Your task to perform on an android device: Add "razer deathadder" to the cart on bestbuy, then select checkout. Image 0: 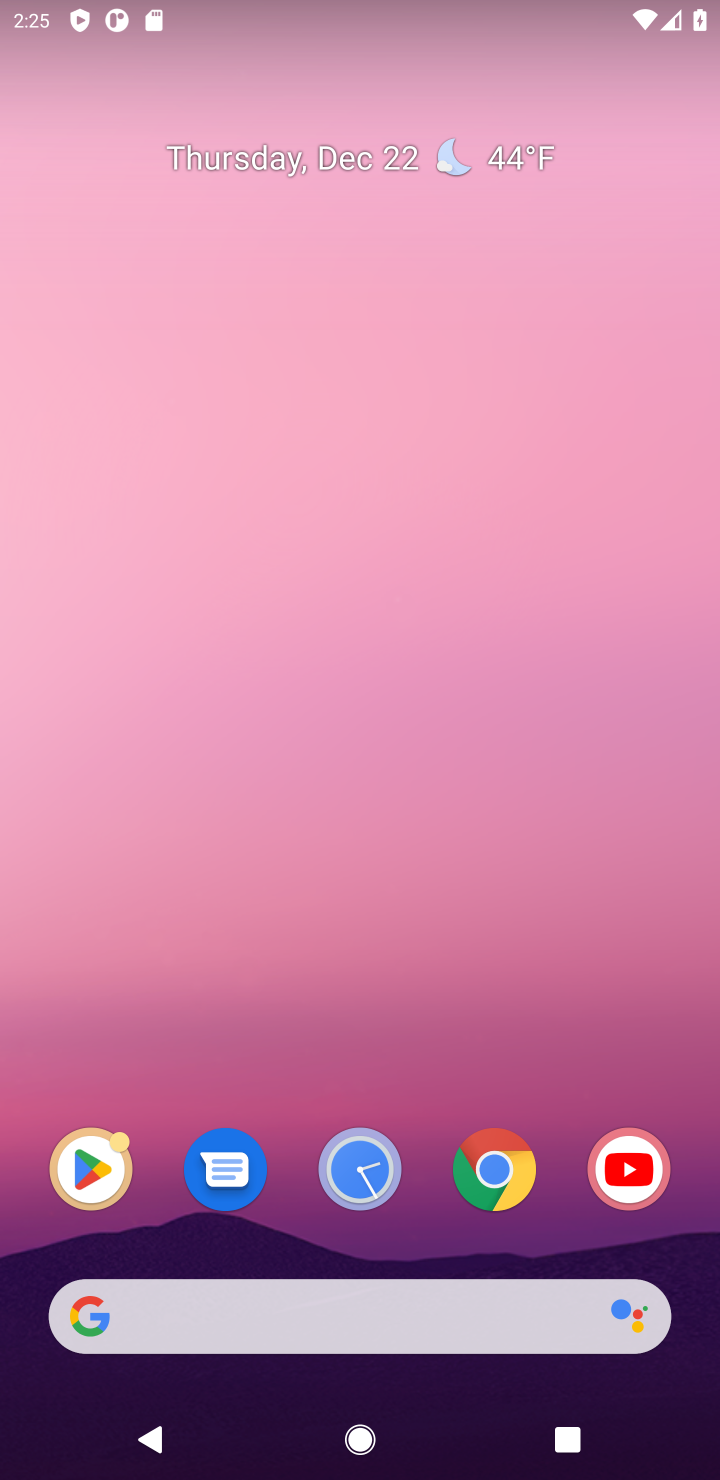
Step 0: click (507, 1162)
Your task to perform on an android device: Add "razer deathadder" to the cart on bestbuy, then select checkout. Image 1: 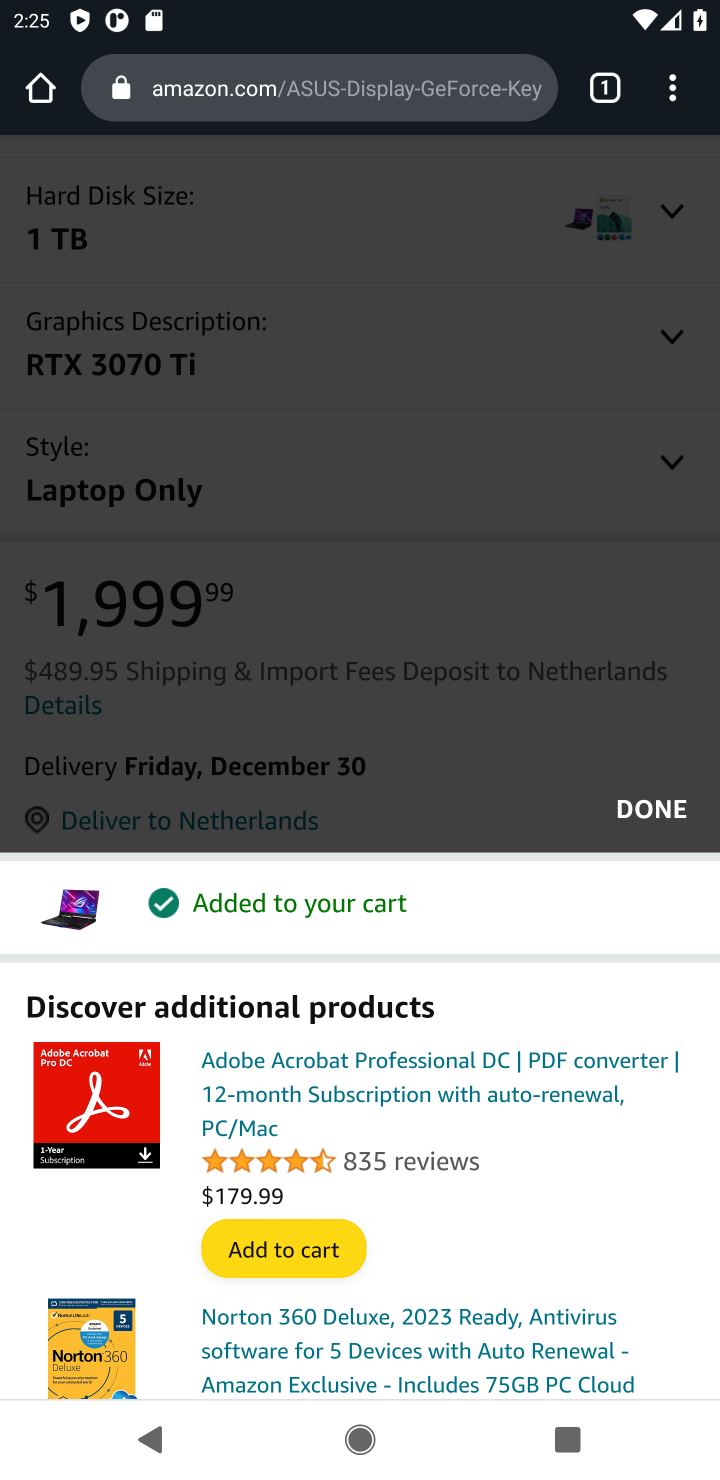
Step 1: click (290, 94)
Your task to perform on an android device: Add "razer deathadder" to the cart on bestbuy, then select checkout. Image 2: 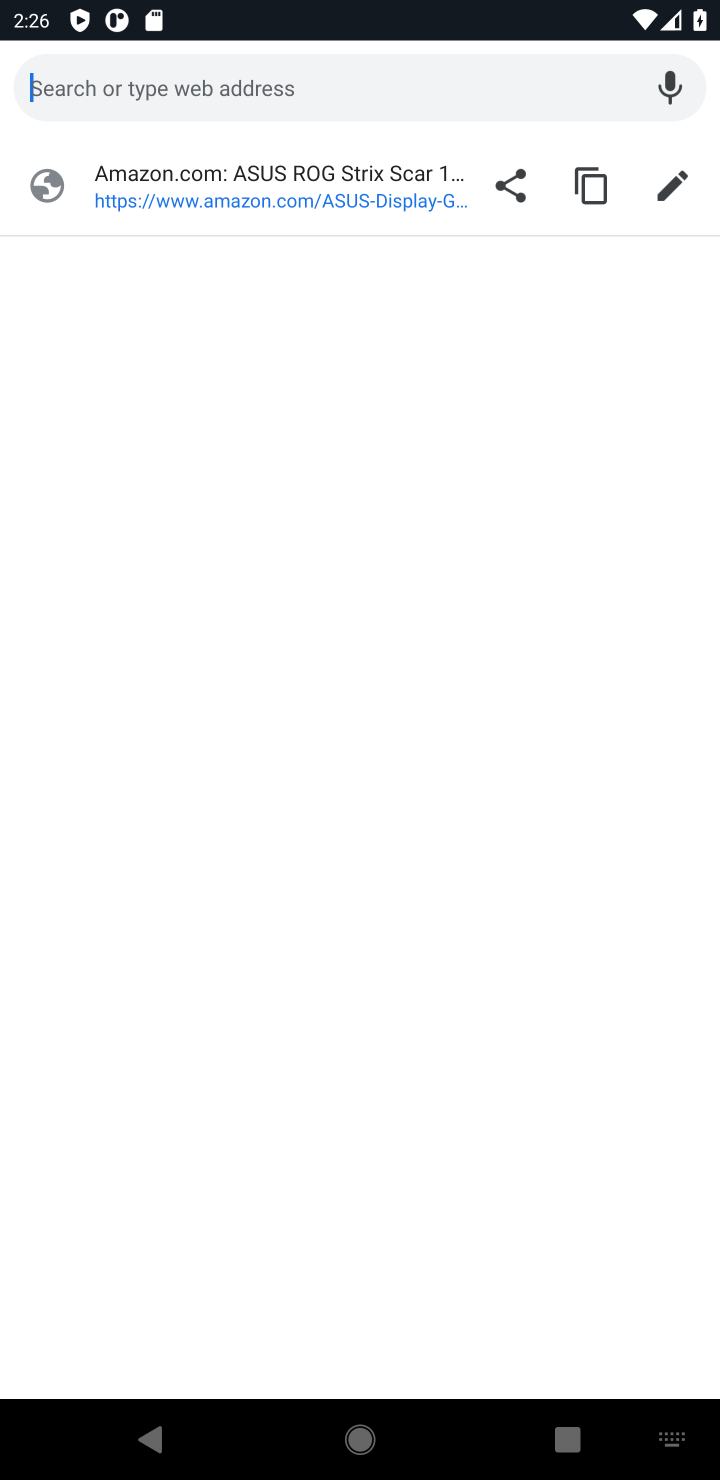
Step 2: type "bestbuy.com"
Your task to perform on an android device: Add "razer deathadder" to the cart on bestbuy, then select checkout. Image 3: 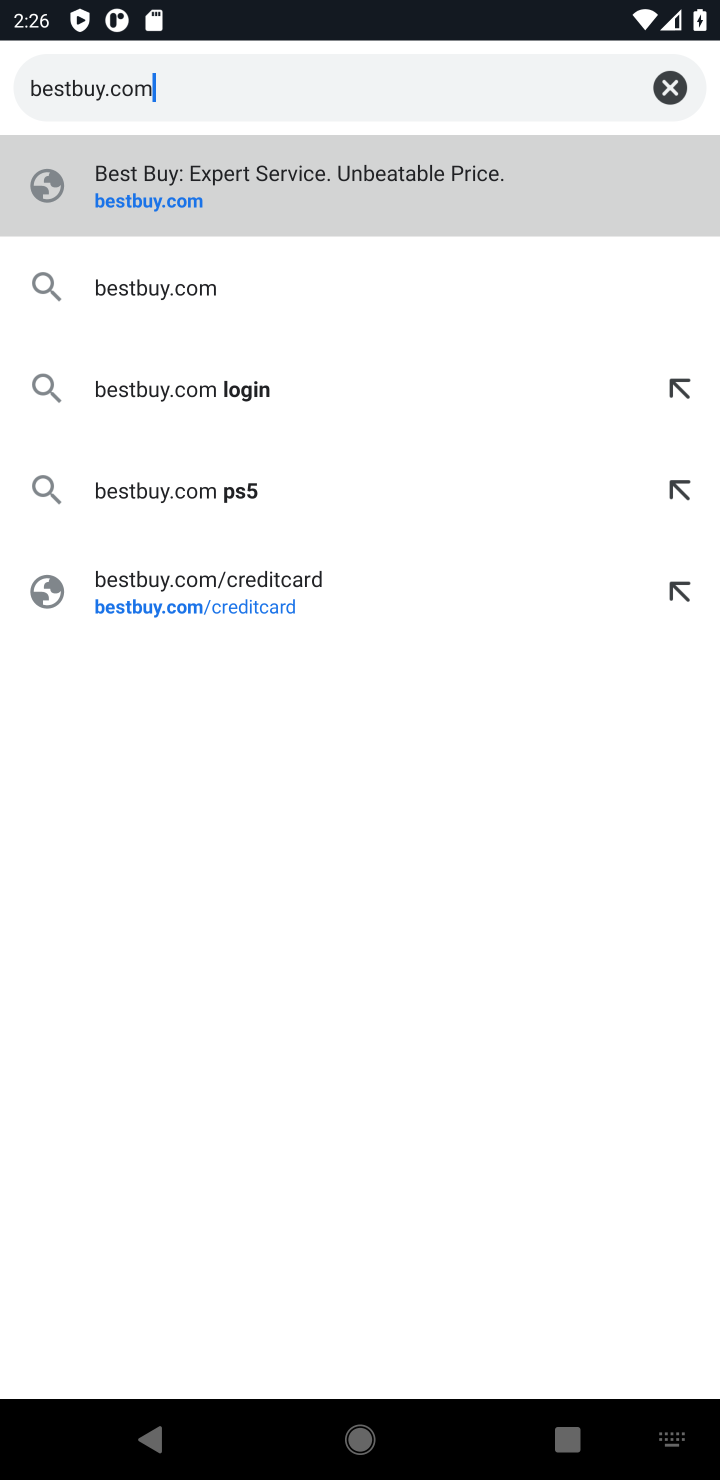
Step 3: click (140, 206)
Your task to perform on an android device: Add "razer deathadder" to the cart on bestbuy, then select checkout. Image 4: 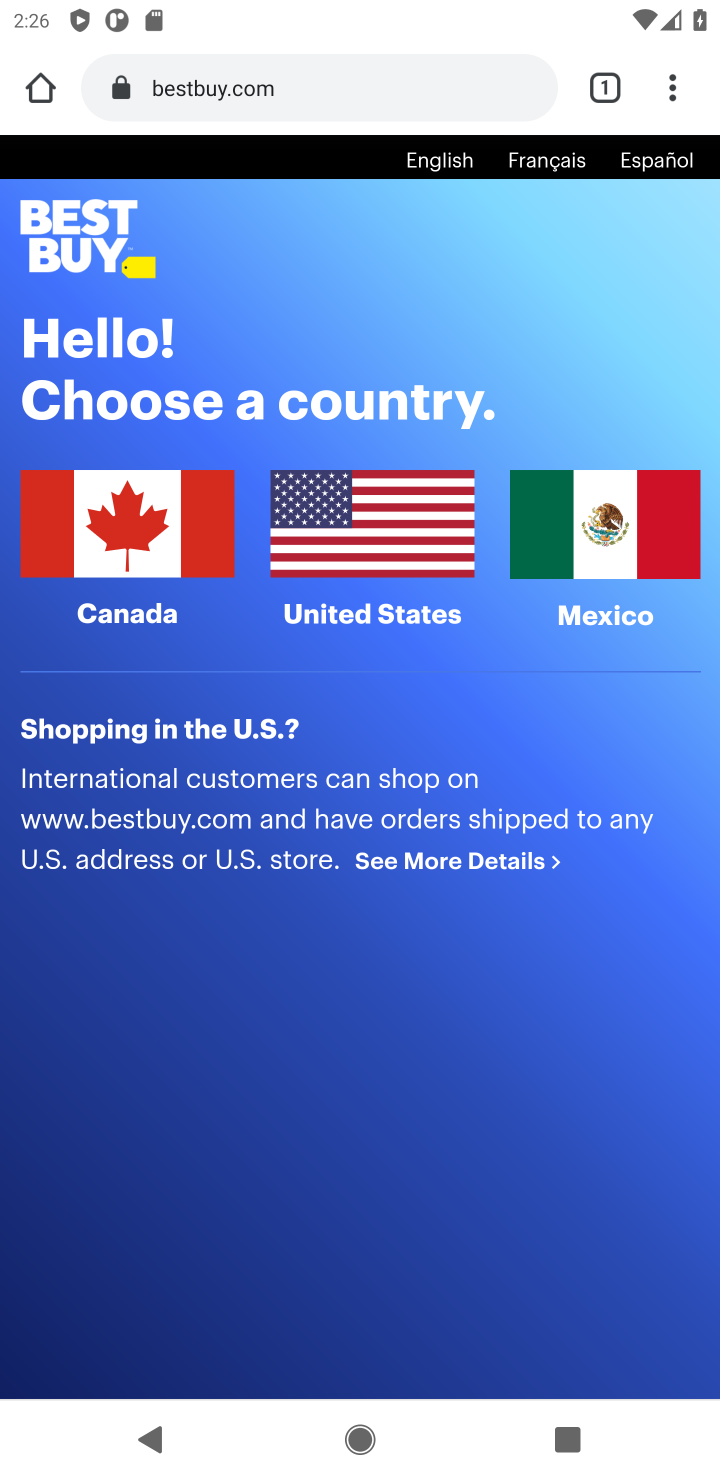
Step 4: click (375, 564)
Your task to perform on an android device: Add "razer deathadder" to the cart on bestbuy, then select checkout. Image 5: 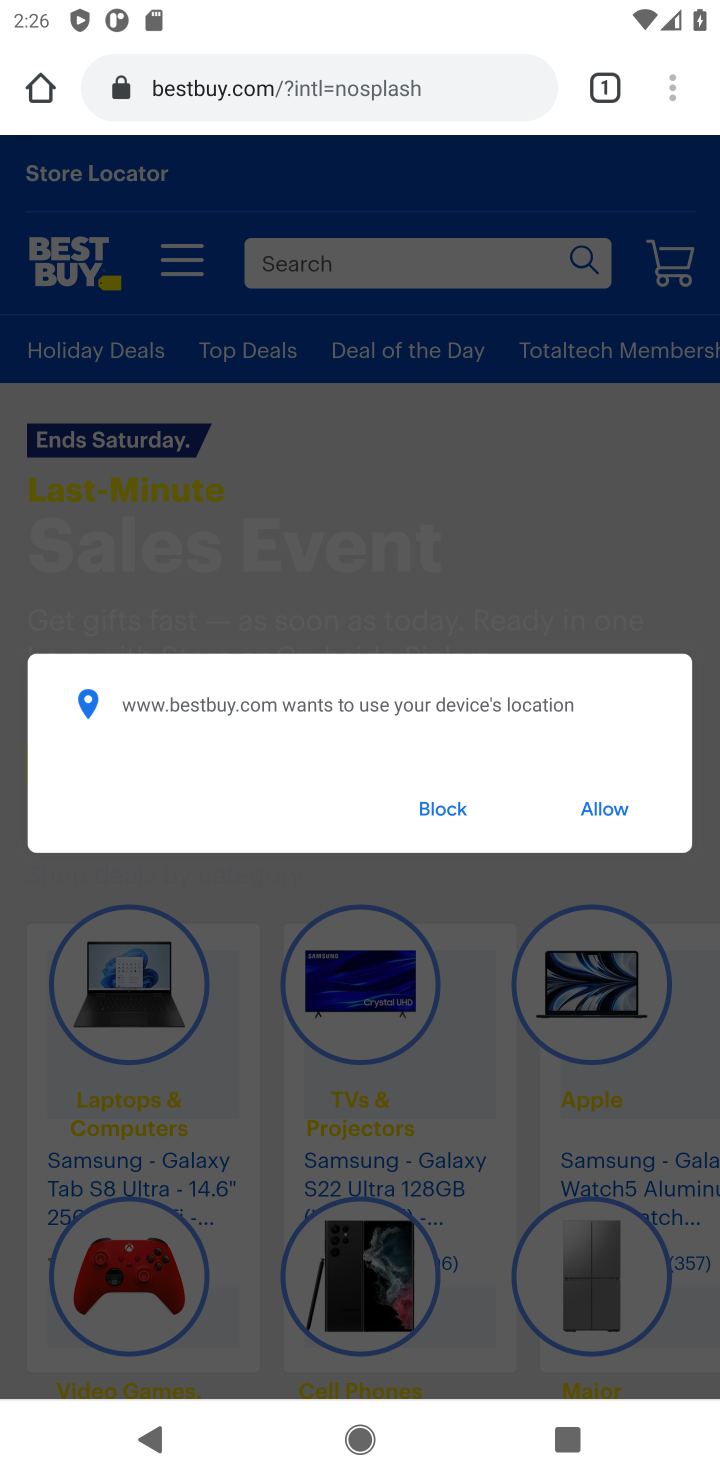
Step 5: click (457, 818)
Your task to perform on an android device: Add "razer deathadder" to the cart on bestbuy, then select checkout. Image 6: 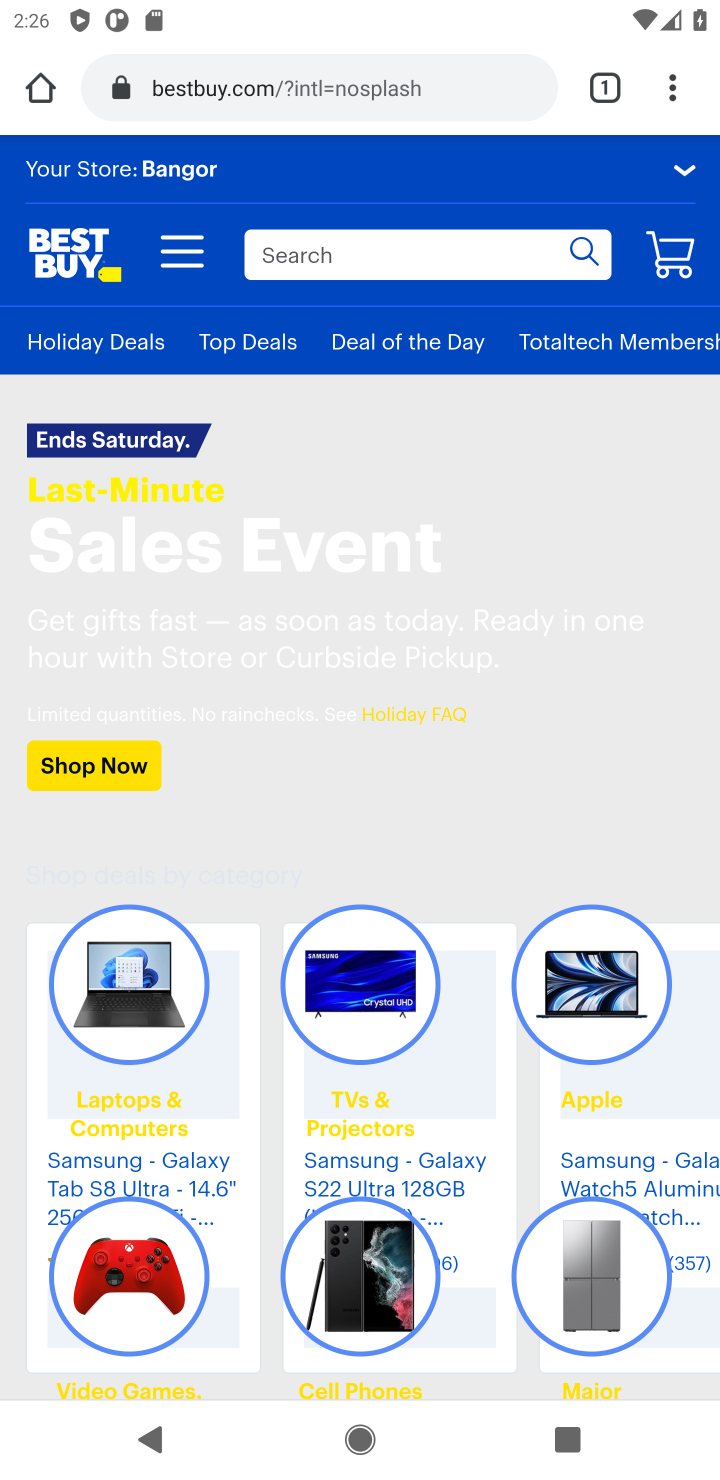
Step 6: click (309, 264)
Your task to perform on an android device: Add "razer deathadder" to the cart on bestbuy, then select checkout. Image 7: 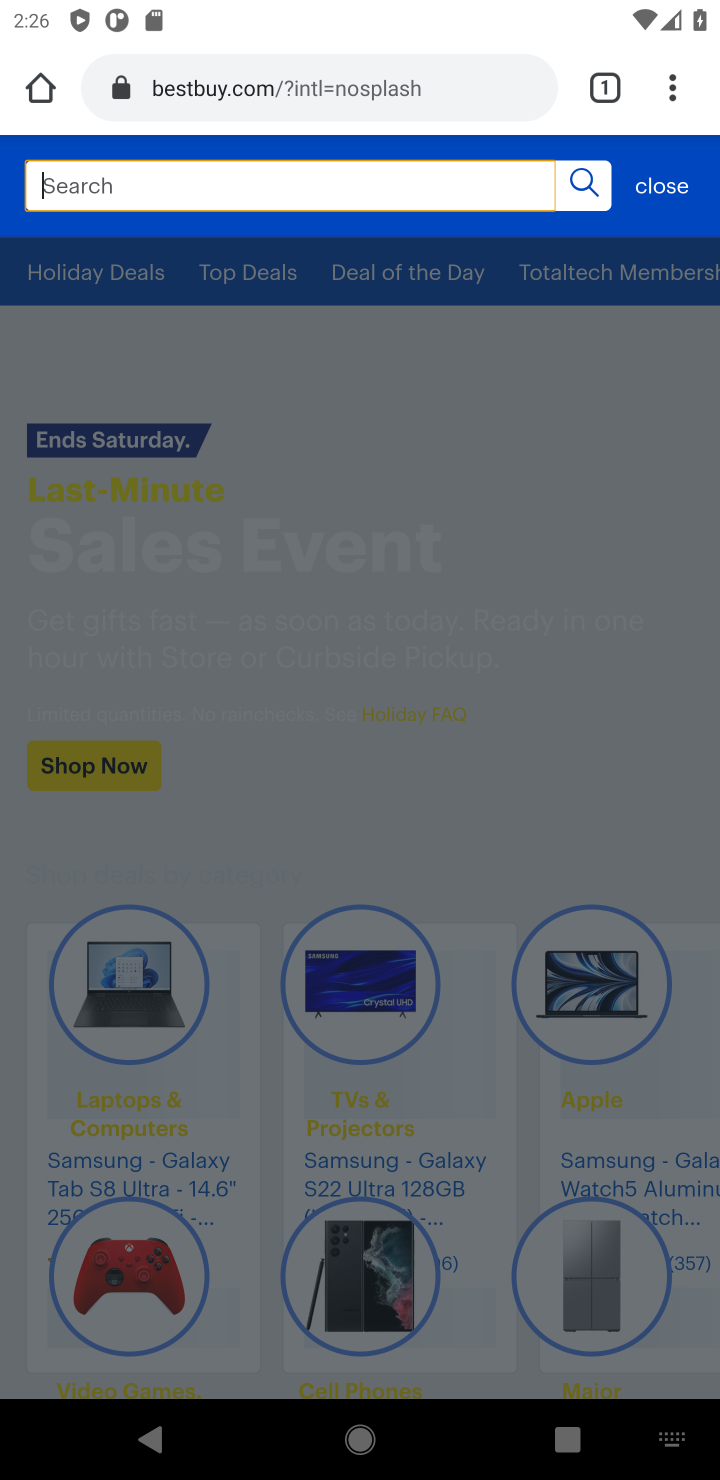
Step 7: type "razer deathadder"
Your task to perform on an android device: Add "razer deathadder" to the cart on bestbuy, then select checkout. Image 8: 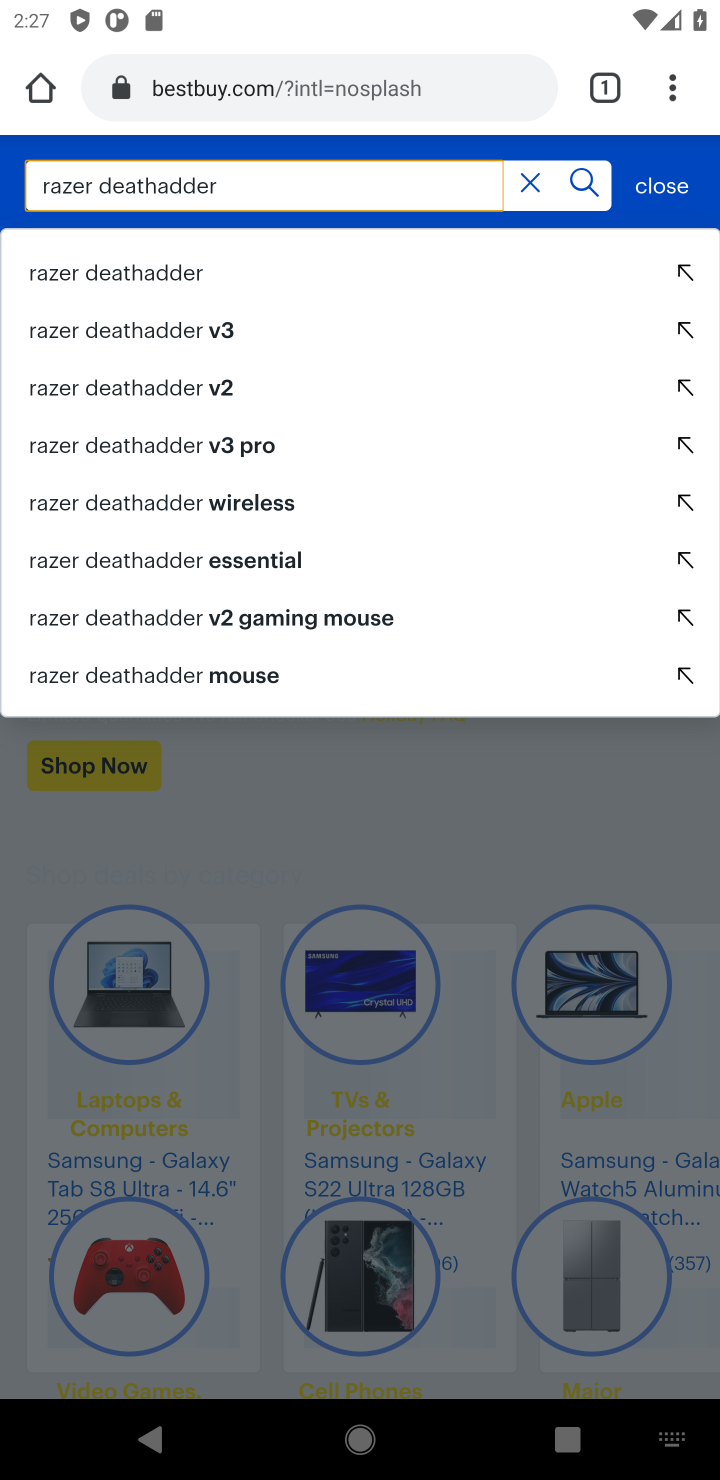
Step 8: click (138, 284)
Your task to perform on an android device: Add "razer deathadder" to the cart on bestbuy, then select checkout. Image 9: 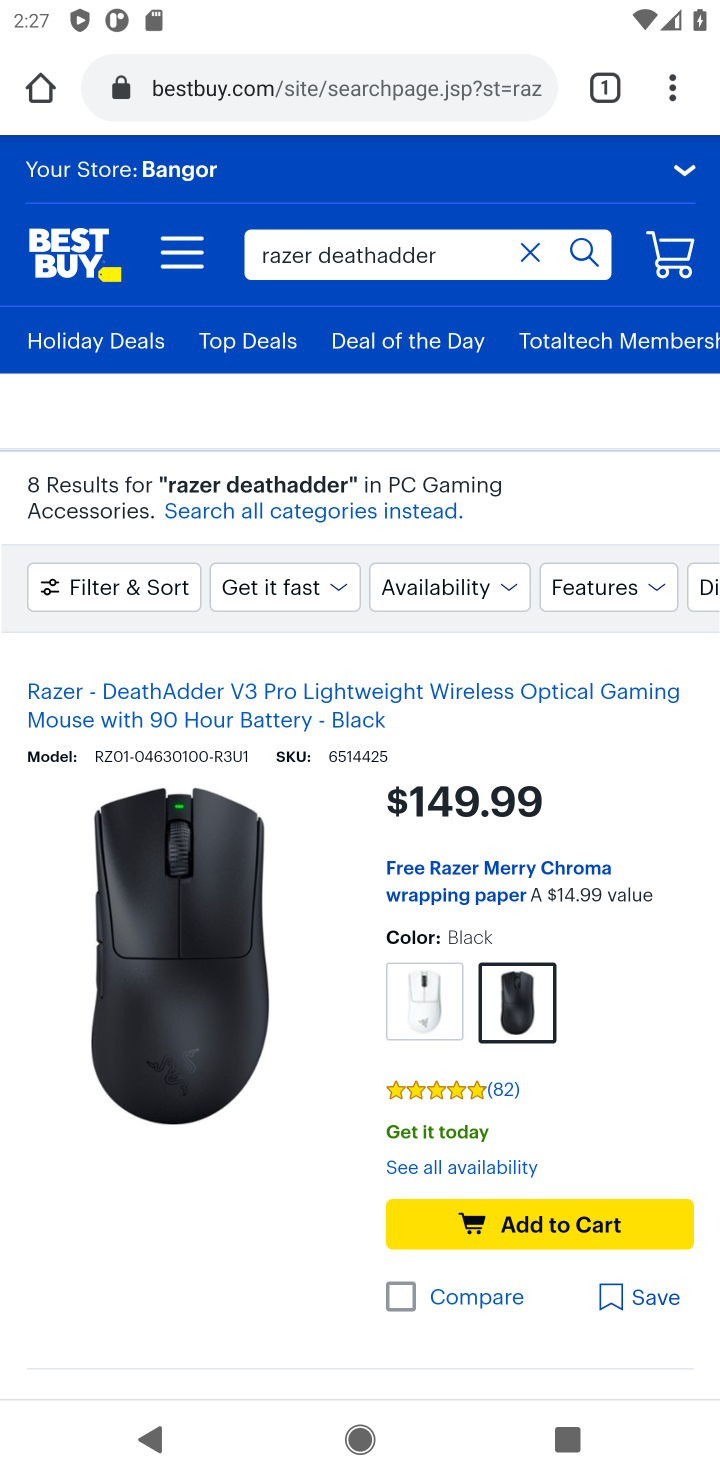
Step 9: click (534, 1140)
Your task to perform on an android device: Add "razer deathadder" to the cart on bestbuy, then select checkout. Image 10: 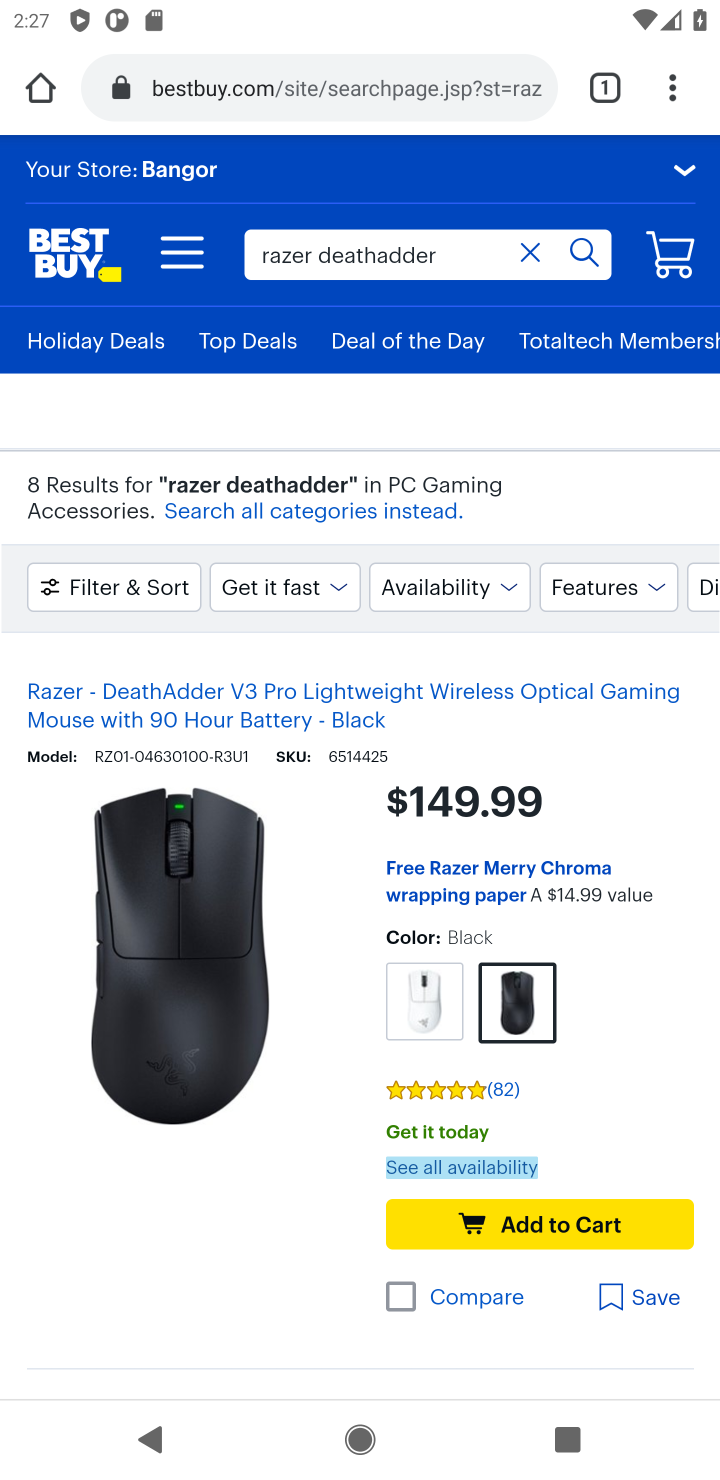
Step 10: click (532, 1223)
Your task to perform on an android device: Add "razer deathadder" to the cart on bestbuy, then select checkout. Image 11: 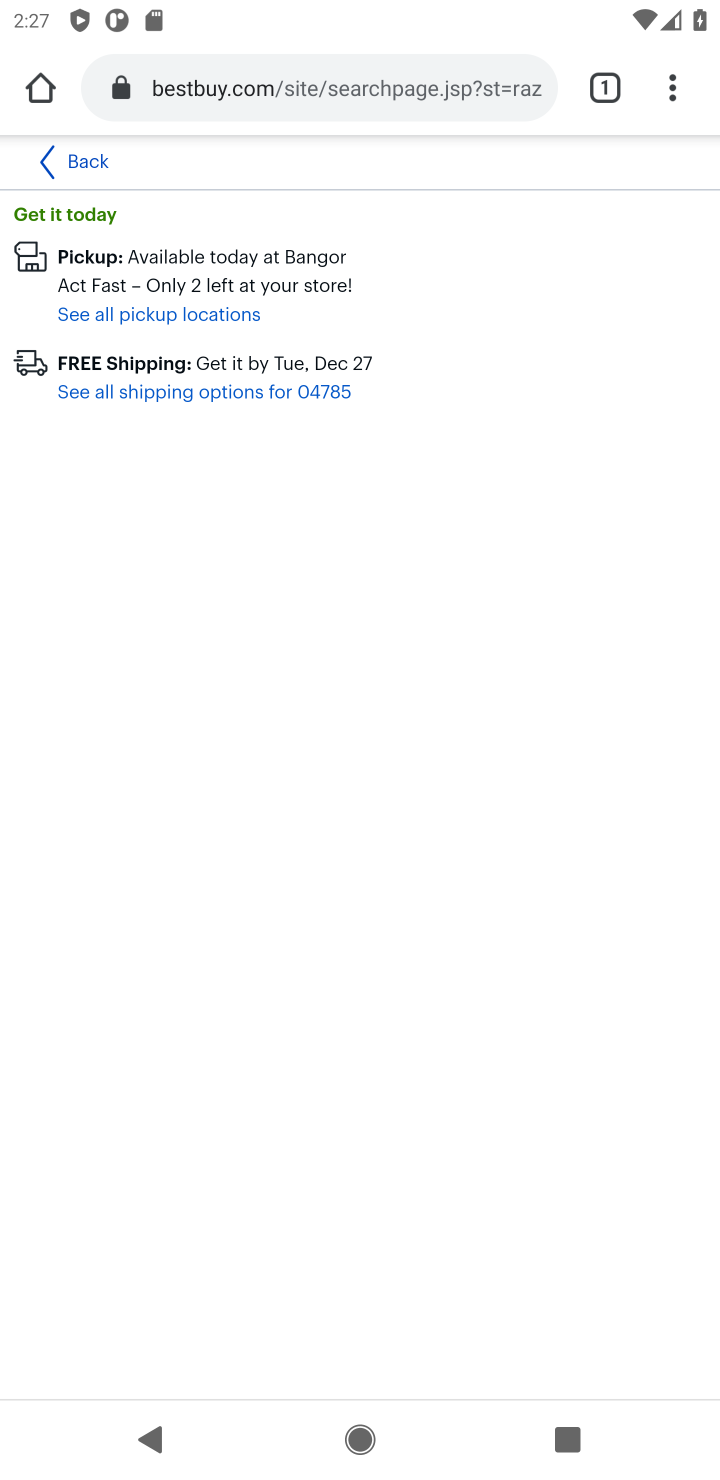
Step 11: click (60, 156)
Your task to perform on an android device: Add "razer deathadder" to the cart on bestbuy, then select checkout. Image 12: 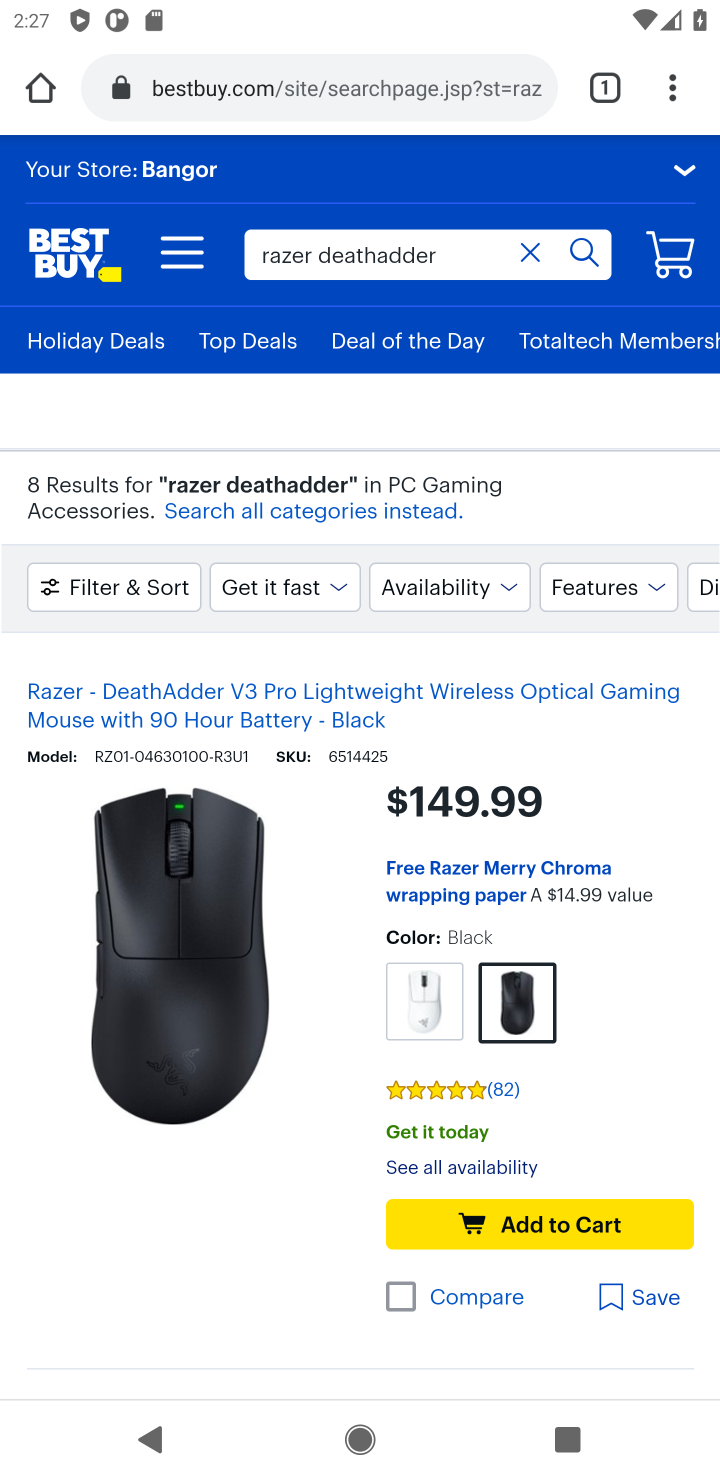
Step 12: click (509, 1231)
Your task to perform on an android device: Add "razer deathadder" to the cart on bestbuy, then select checkout. Image 13: 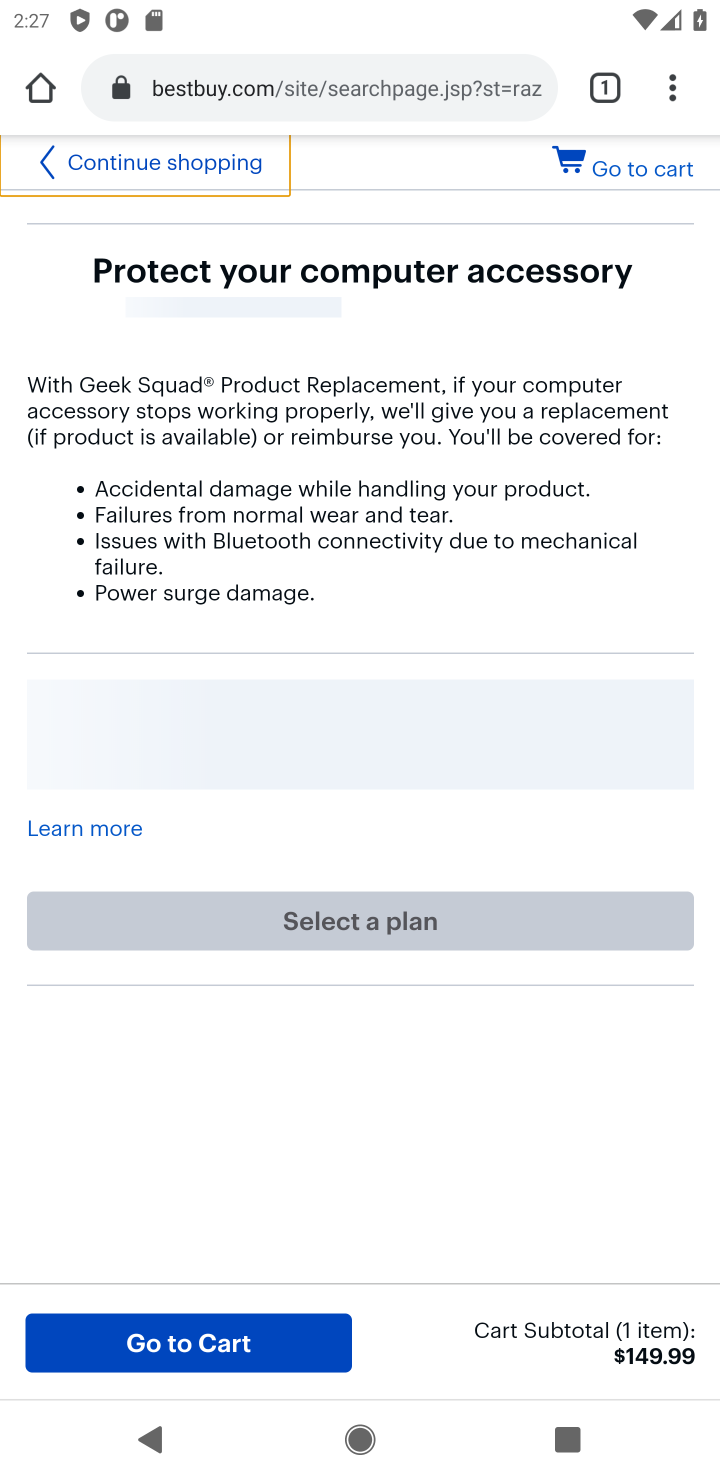
Step 13: click (612, 165)
Your task to perform on an android device: Add "razer deathadder" to the cart on bestbuy, then select checkout. Image 14: 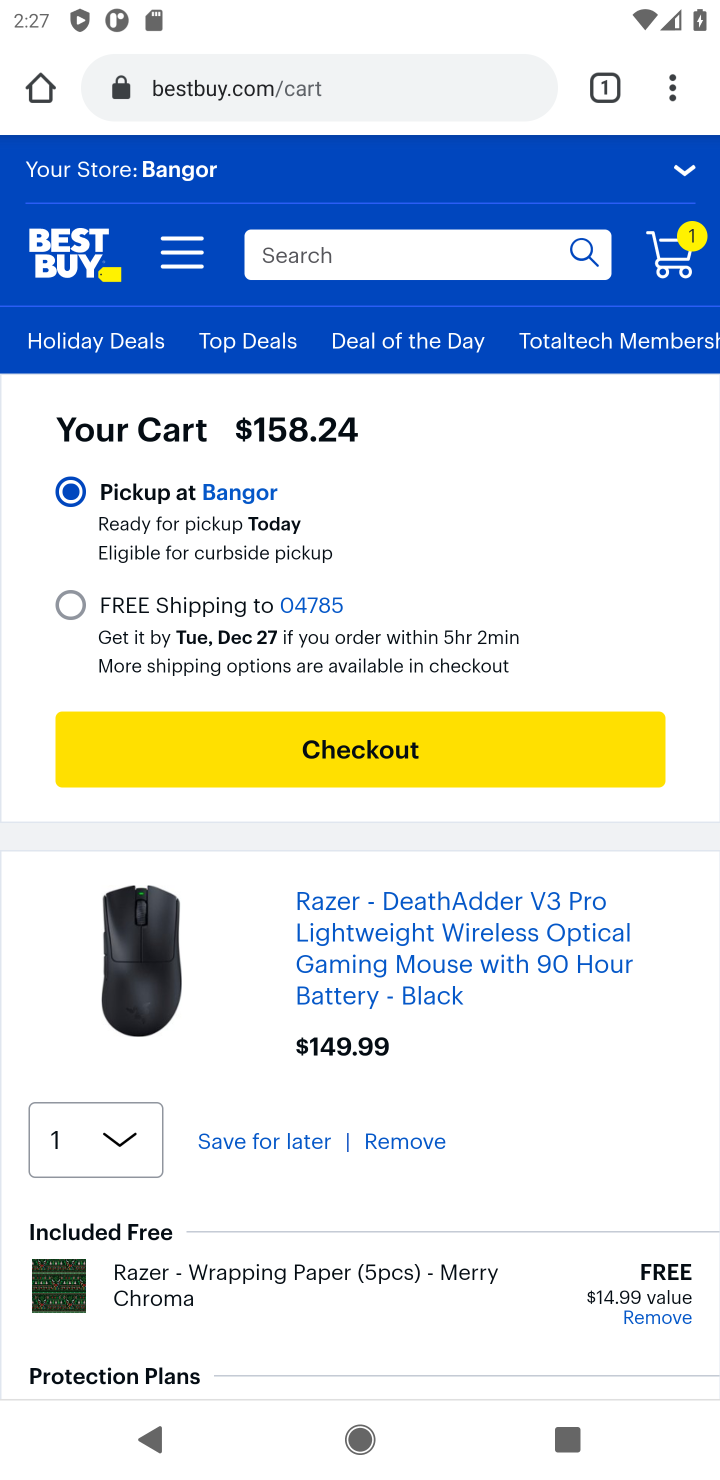
Step 14: click (367, 740)
Your task to perform on an android device: Add "razer deathadder" to the cart on bestbuy, then select checkout. Image 15: 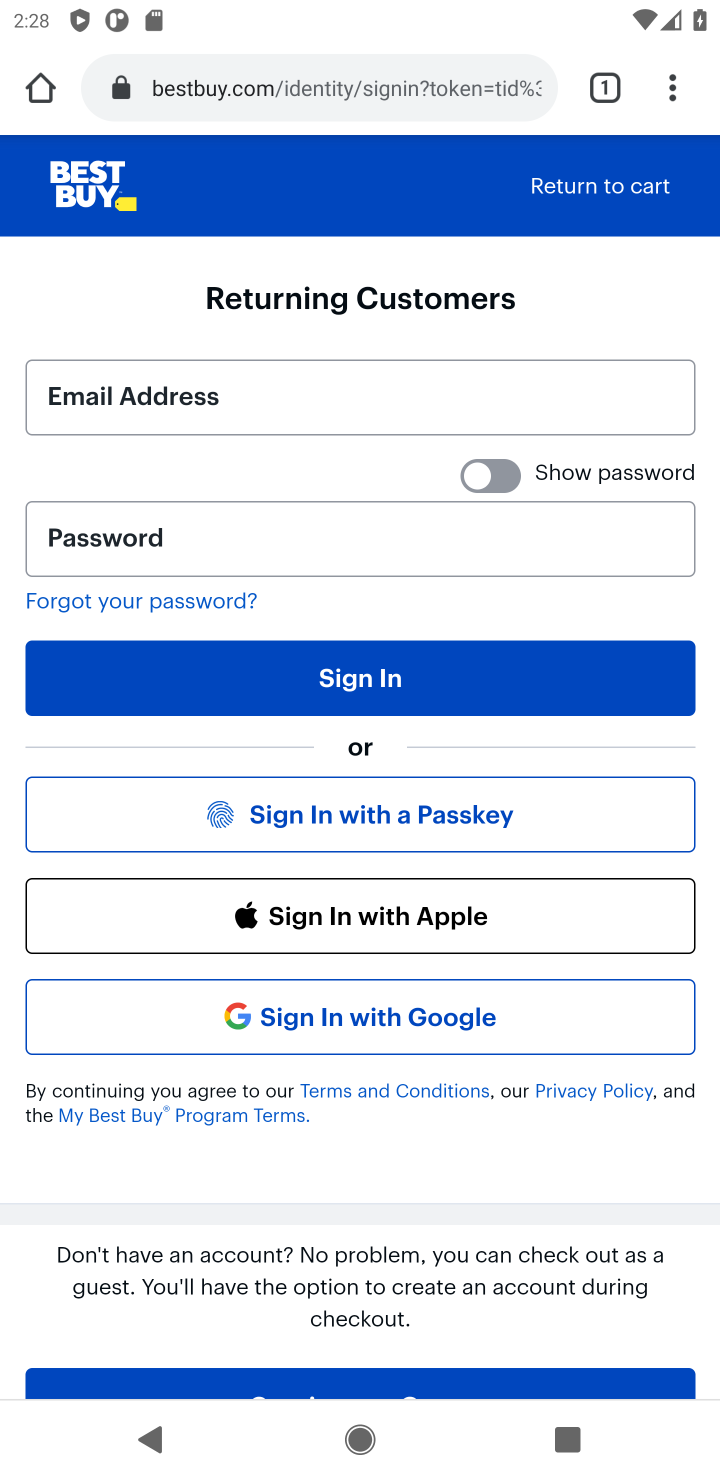
Step 15: task complete